Your task to perform on an android device: change keyboard looks Image 0: 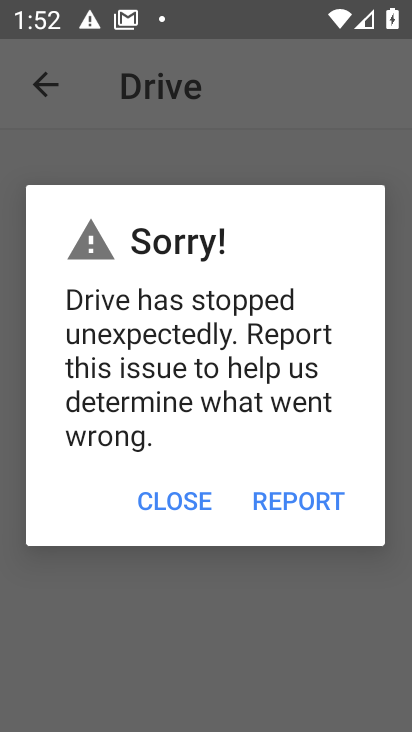
Step 0: press home button
Your task to perform on an android device: change keyboard looks Image 1: 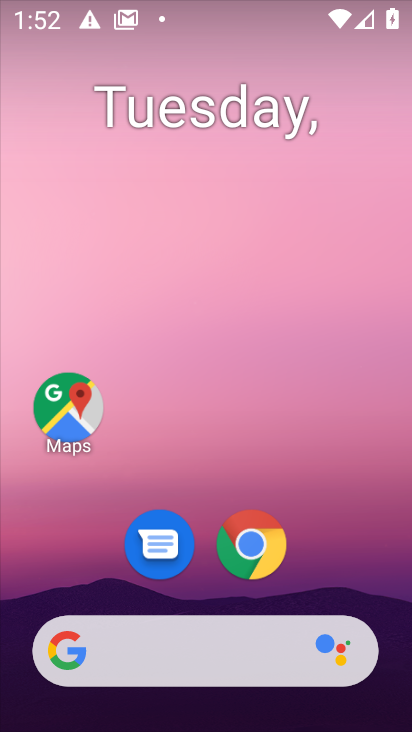
Step 1: drag from (200, 631) to (216, 78)
Your task to perform on an android device: change keyboard looks Image 2: 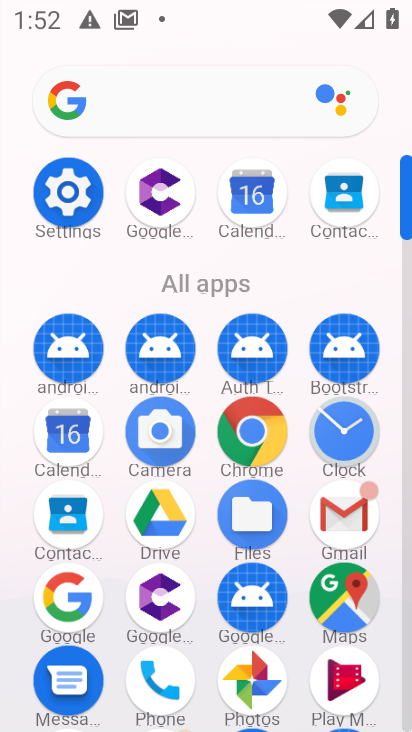
Step 2: click (67, 192)
Your task to perform on an android device: change keyboard looks Image 3: 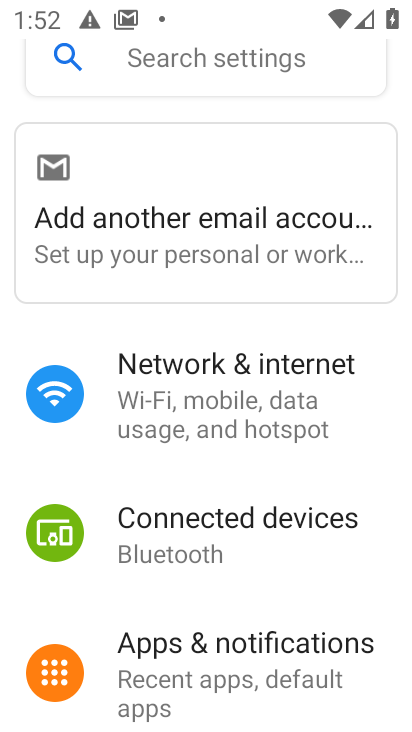
Step 3: drag from (222, 565) to (322, 434)
Your task to perform on an android device: change keyboard looks Image 4: 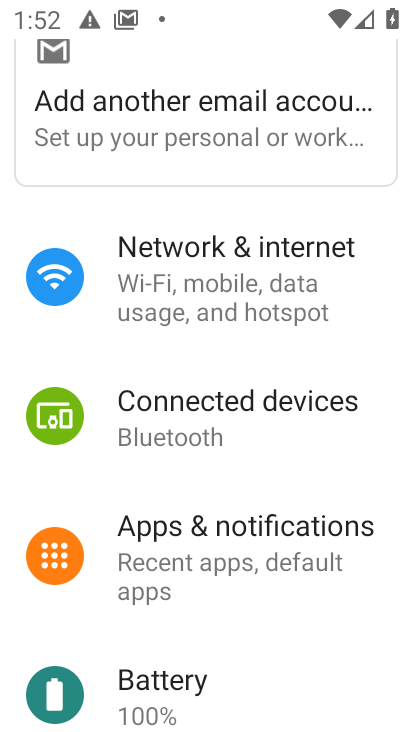
Step 4: drag from (230, 620) to (348, 467)
Your task to perform on an android device: change keyboard looks Image 5: 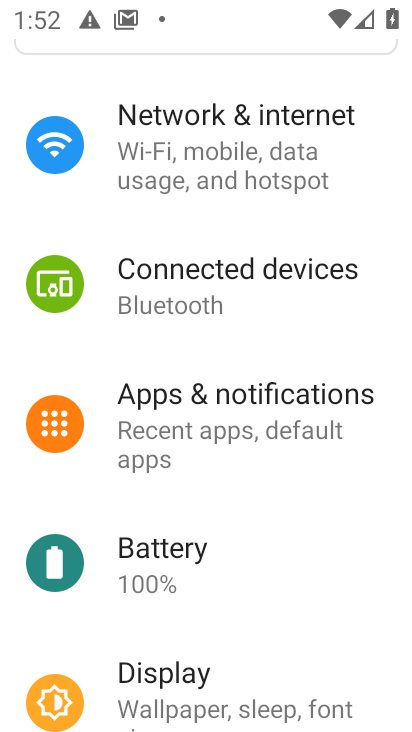
Step 5: drag from (240, 505) to (276, 351)
Your task to perform on an android device: change keyboard looks Image 6: 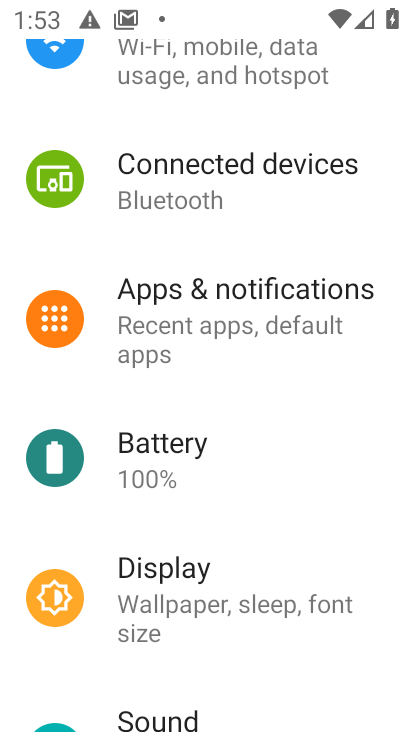
Step 6: drag from (201, 533) to (280, 387)
Your task to perform on an android device: change keyboard looks Image 7: 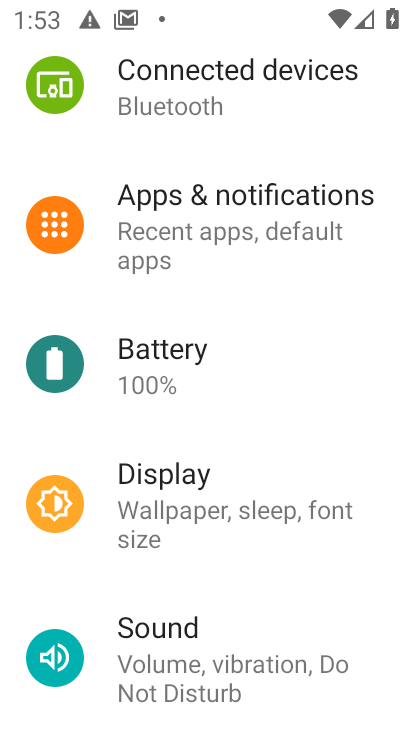
Step 7: drag from (184, 566) to (274, 402)
Your task to perform on an android device: change keyboard looks Image 8: 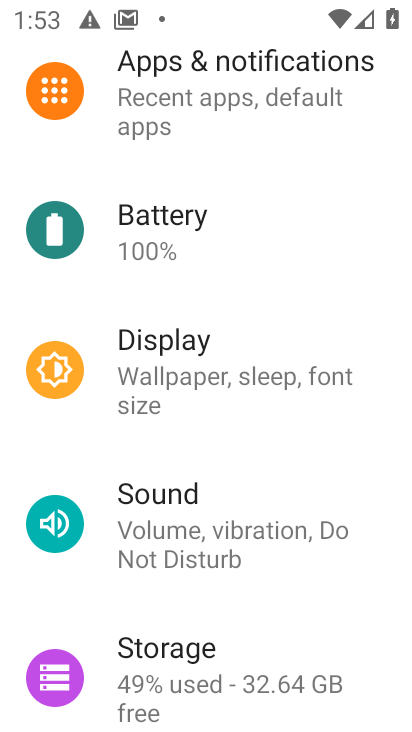
Step 8: drag from (206, 468) to (236, 289)
Your task to perform on an android device: change keyboard looks Image 9: 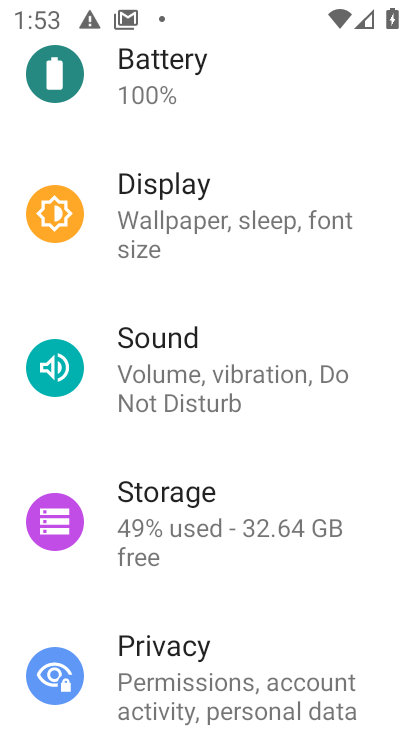
Step 9: drag from (184, 538) to (234, 399)
Your task to perform on an android device: change keyboard looks Image 10: 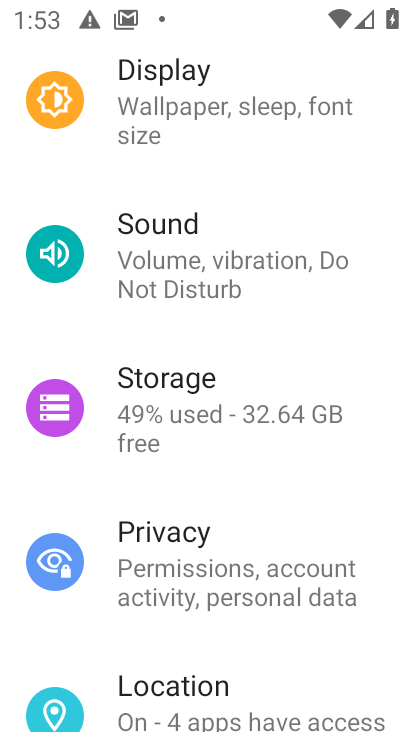
Step 10: drag from (184, 617) to (221, 483)
Your task to perform on an android device: change keyboard looks Image 11: 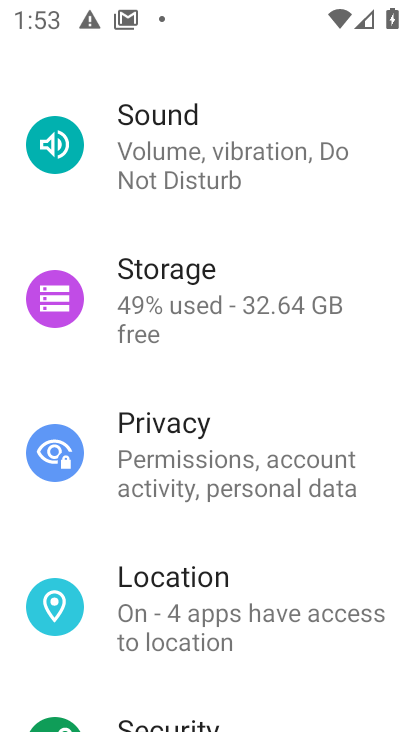
Step 11: drag from (186, 637) to (263, 498)
Your task to perform on an android device: change keyboard looks Image 12: 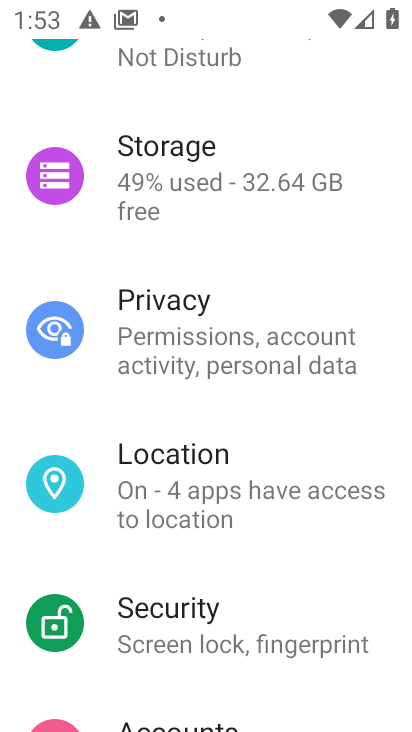
Step 12: drag from (216, 562) to (273, 442)
Your task to perform on an android device: change keyboard looks Image 13: 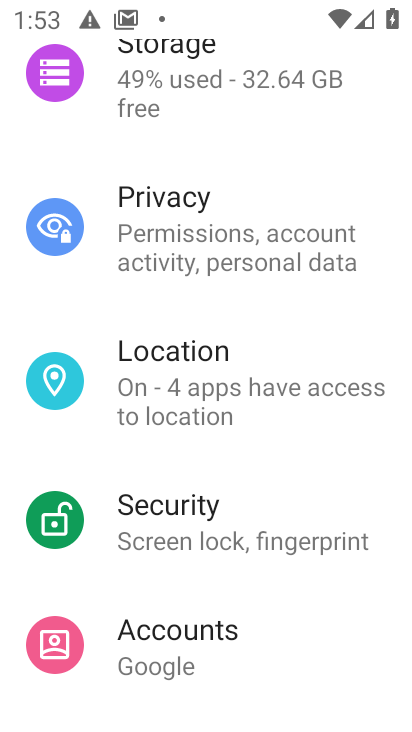
Step 13: drag from (170, 592) to (262, 428)
Your task to perform on an android device: change keyboard looks Image 14: 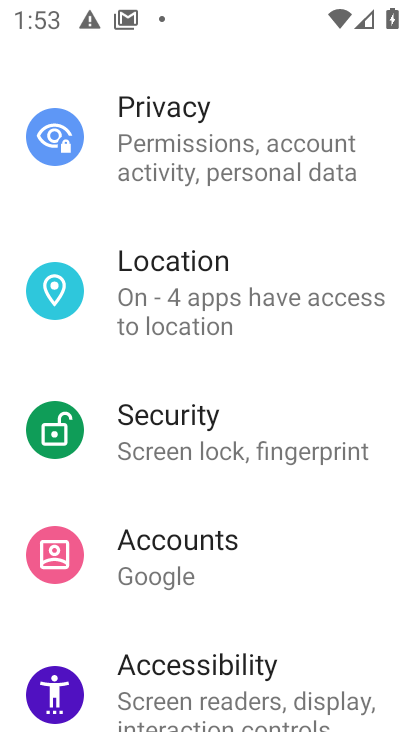
Step 14: drag from (144, 613) to (175, 447)
Your task to perform on an android device: change keyboard looks Image 15: 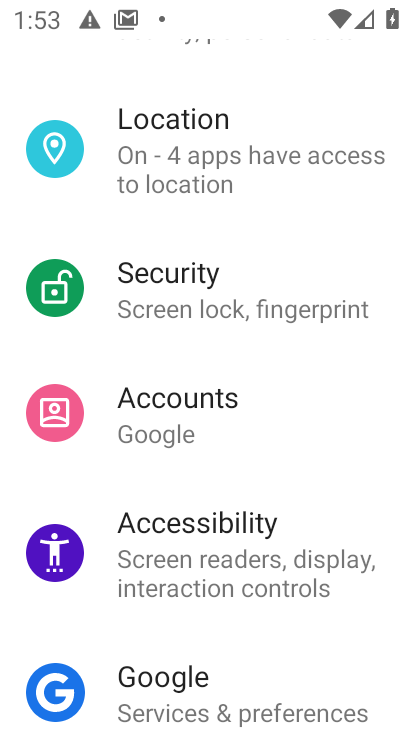
Step 15: drag from (142, 637) to (237, 476)
Your task to perform on an android device: change keyboard looks Image 16: 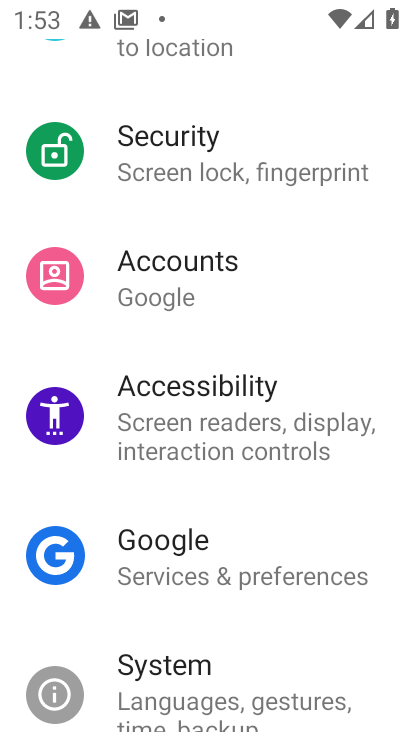
Step 16: drag from (119, 627) to (248, 454)
Your task to perform on an android device: change keyboard looks Image 17: 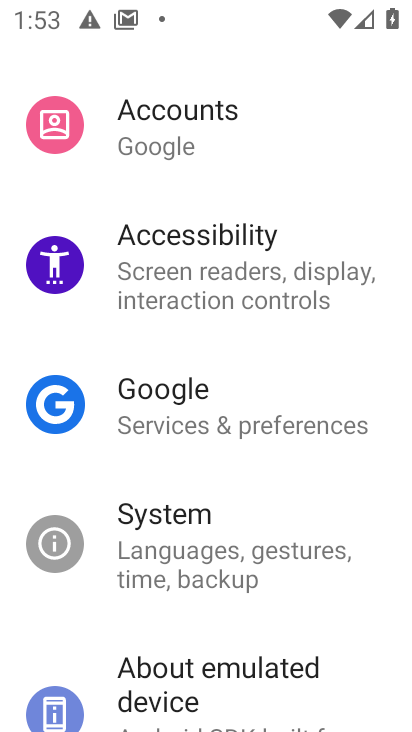
Step 17: click (177, 522)
Your task to perform on an android device: change keyboard looks Image 18: 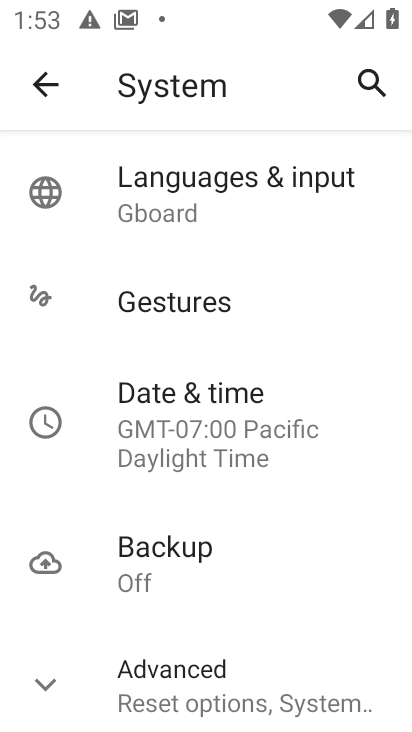
Step 18: click (236, 183)
Your task to perform on an android device: change keyboard looks Image 19: 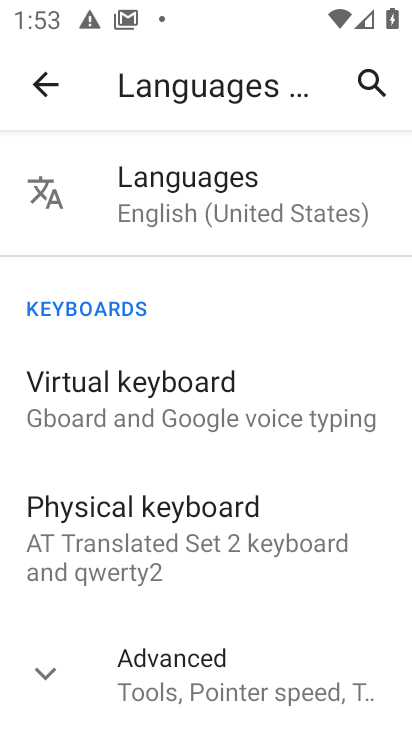
Step 19: click (168, 390)
Your task to perform on an android device: change keyboard looks Image 20: 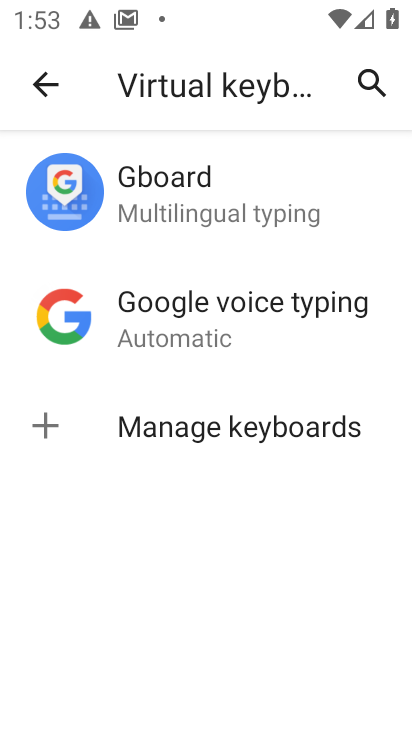
Step 20: click (189, 175)
Your task to perform on an android device: change keyboard looks Image 21: 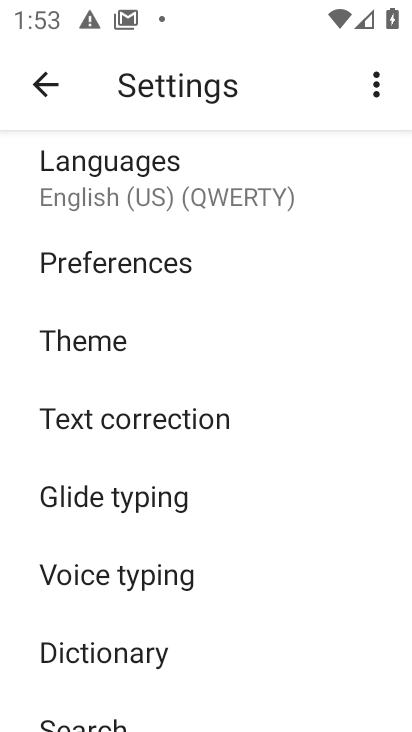
Step 21: click (105, 343)
Your task to perform on an android device: change keyboard looks Image 22: 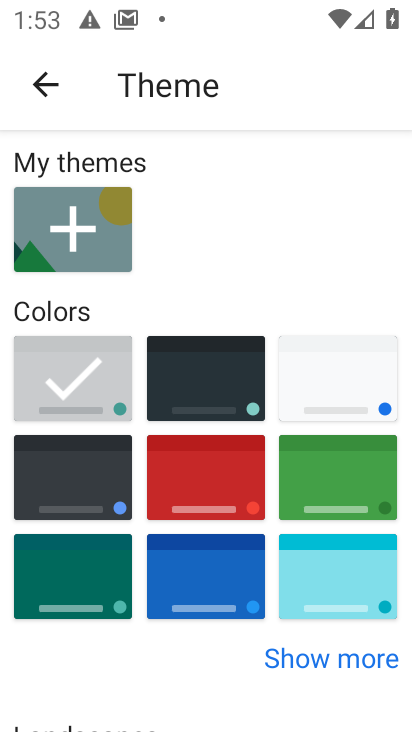
Step 22: click (187, 490)
Your task to perform on an android device: change keyboard looks Image 23: 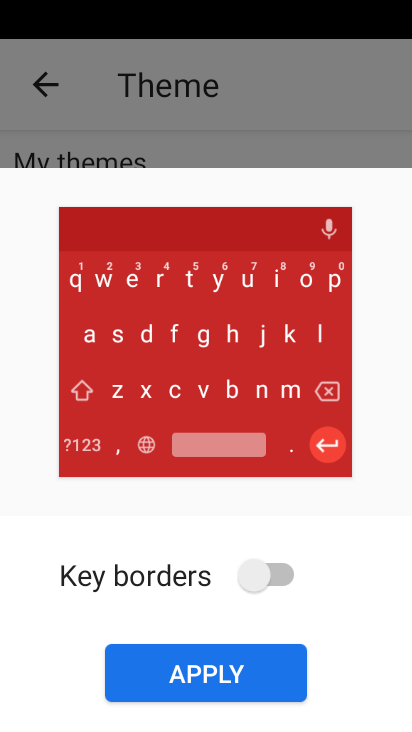
Step 23: click (259, 575)
Your task to perform on an android device: change keyboard looks Image 24: 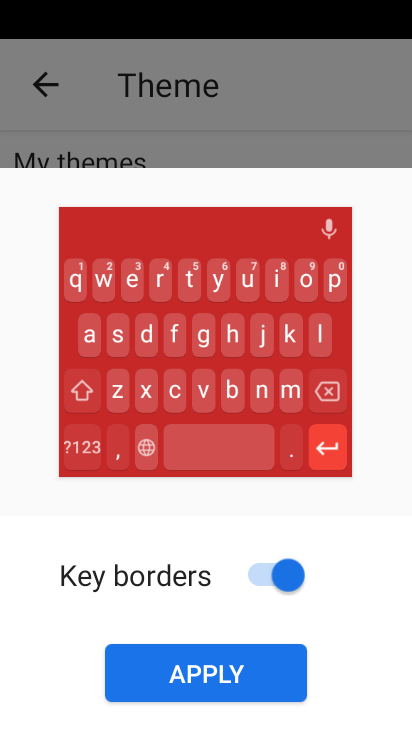
Step 24: click (189, 682)
Your task to perform on an android device: change keyboard looks Image 25: 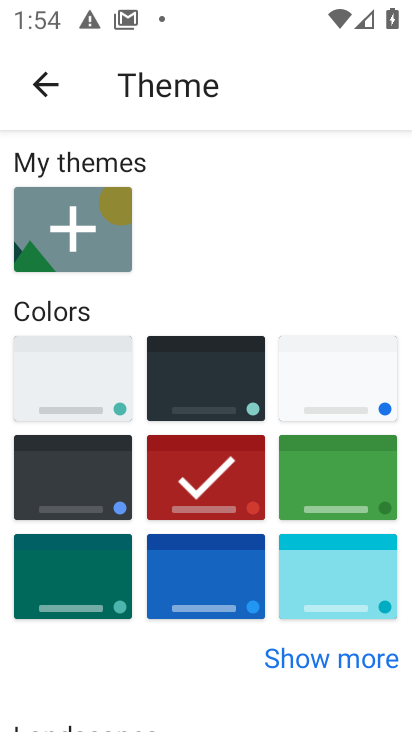
Step 25: task complete